Your task to perform on an android device: turn on priority inbox in the gmail app Image 0: 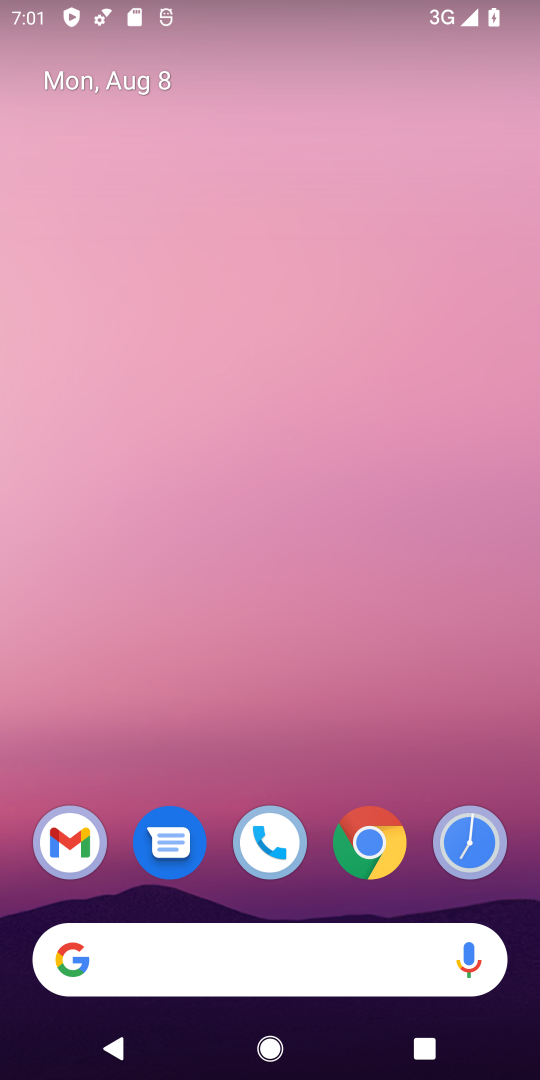
Step 0: drag from (330, 875) to (289, 24)
Your task to perform on an android device: turn on priority inbox in the gmail app Image 1: 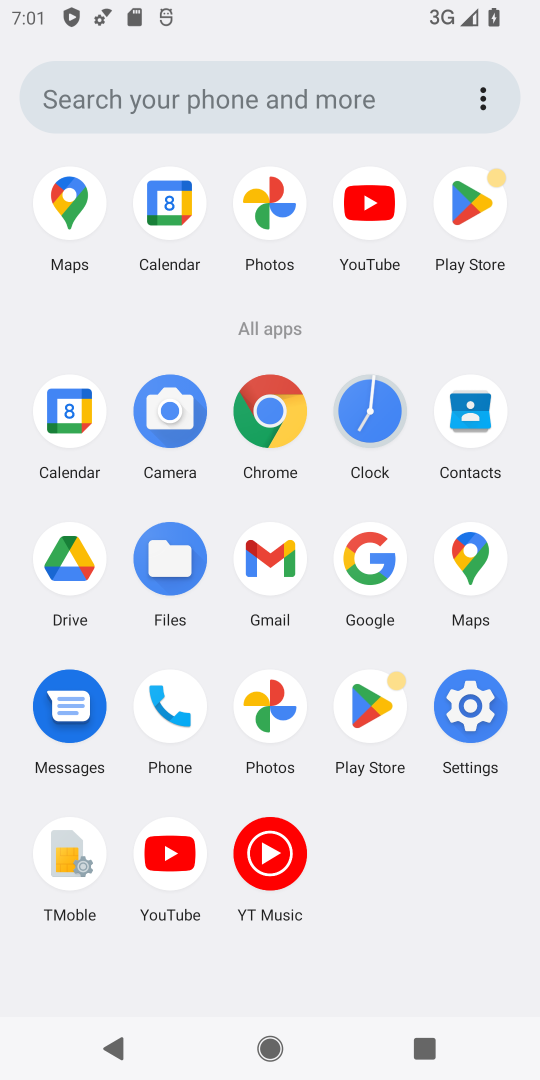
Step 1: click (267, 578)
Your task to perform on an android device: turn on priority inbox in the gmail app Image 2: 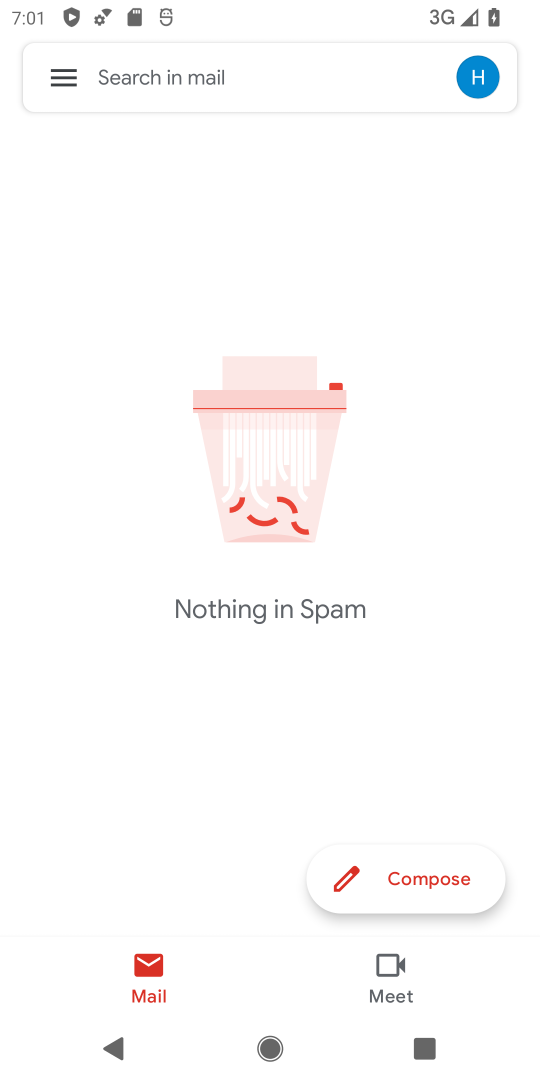
Step 2: click (53, 82)
Your task to perform on an android device: turn on priority inbox in the gmail app Image 3: 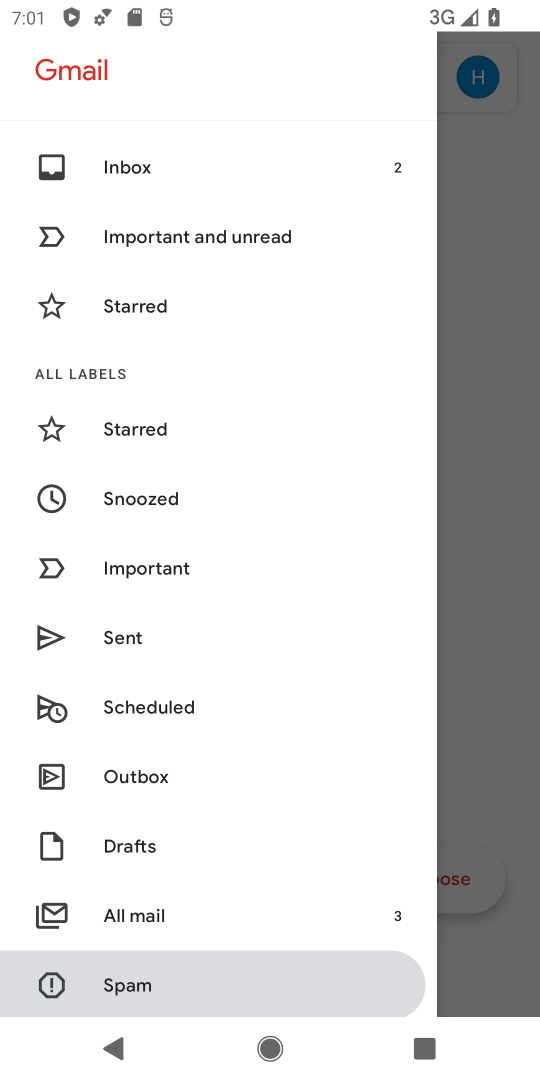
Step 3: drag from (185, 775) to (168, 184)
Your task to perform on an android device: turn on priority inbox in the gmail app Image 4: 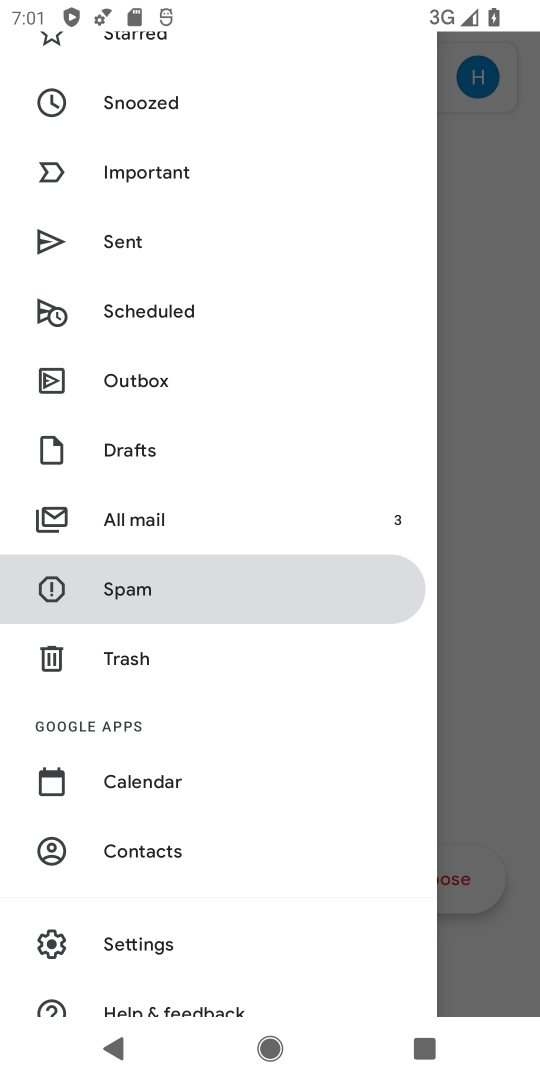
Step 4: click (150, 938)
Your task to perform on an android device: turn on priority inbox in the gmail app Image 5: 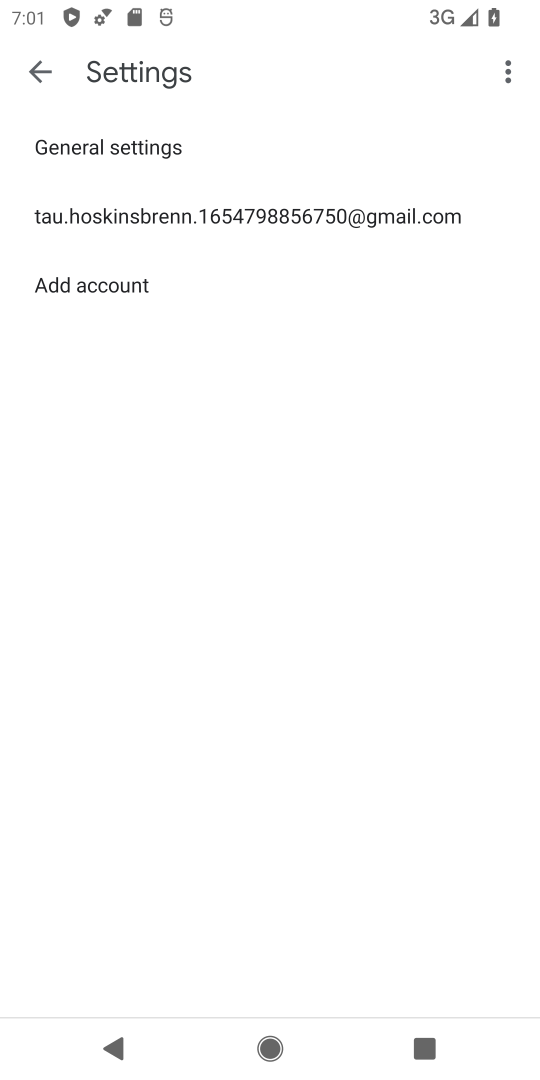
Step 5: click (131, 223)
Your task to perform on an android device: turn on priority inbox in the gmail app Image 6: 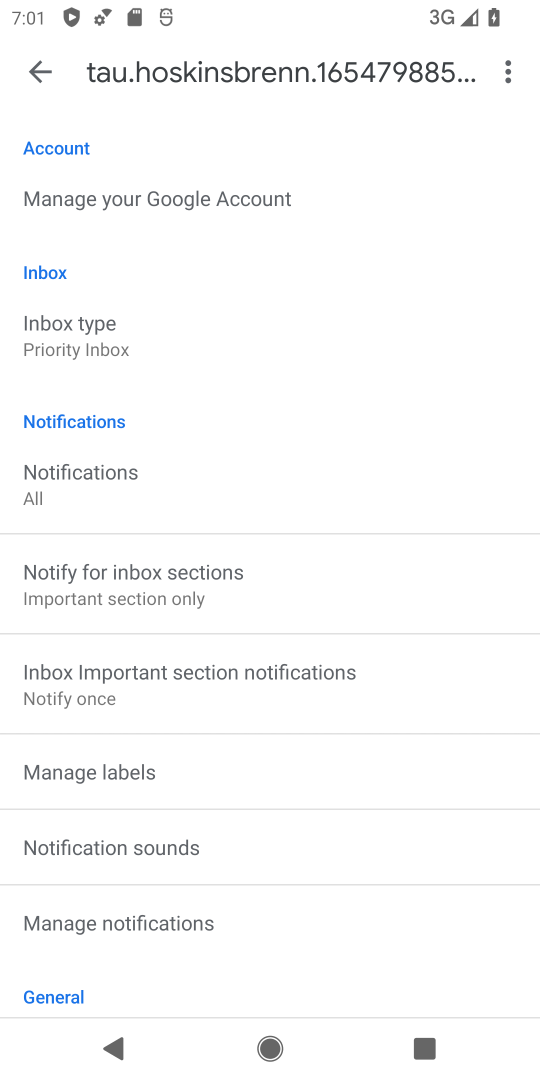
Step 6: click (126, 320)
Your task to perform on an android device: turn on priority inbox in the gmail app Image 7: 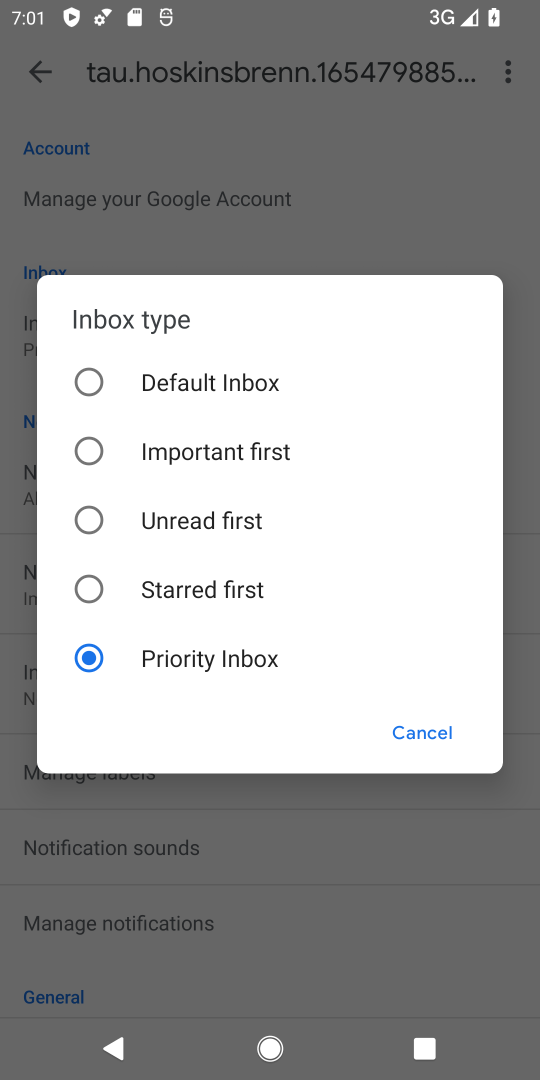
Step 7: click (153, 642)
Your task to perform on an android device: turn on priority inbox in the gmail app Image 8: 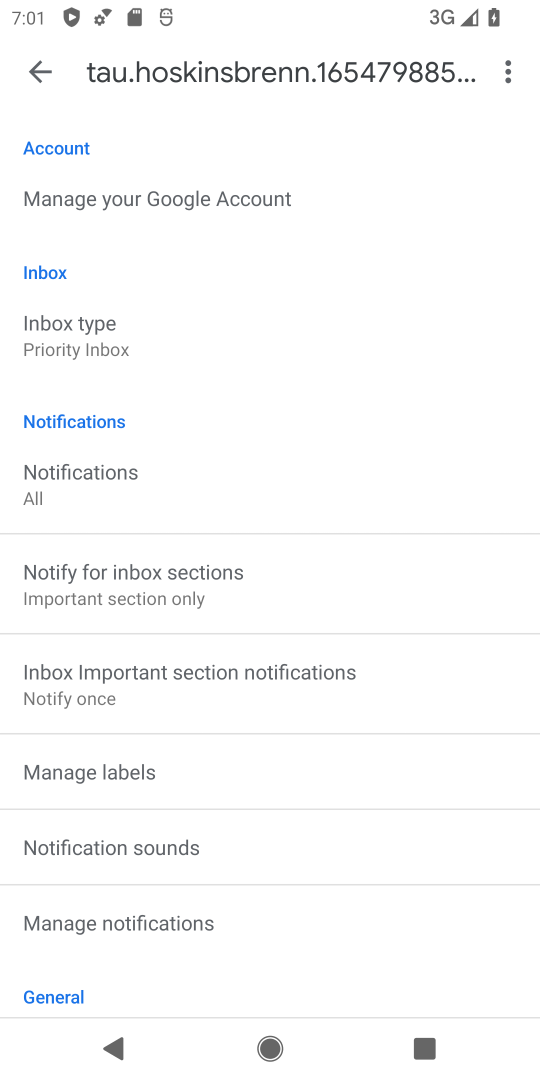
Step 8: task complete